Your task to perform on an android device: toggle wifi Image 0: 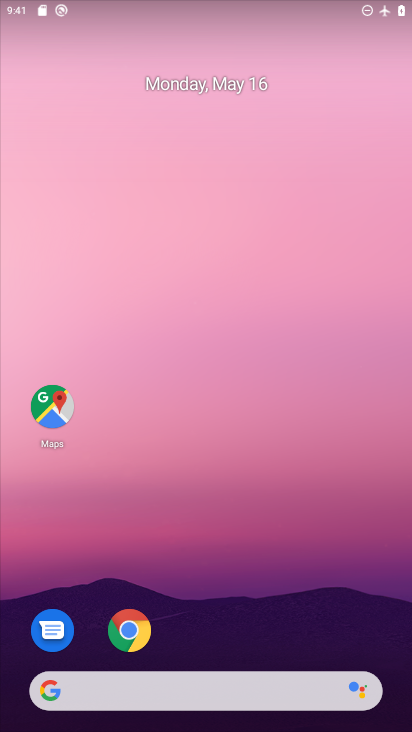
Step 0: drag from (199, 638) to (184, 299)
Your task to perform on an android device: toggle wifi Image 1: 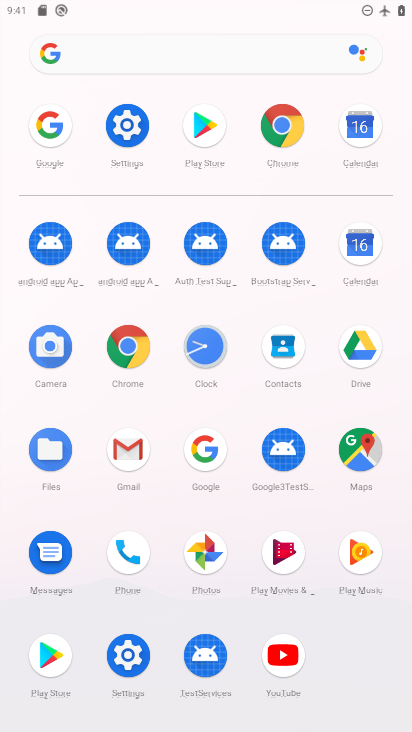
Step 1: click (133, 119)
Your task to perform on an android device: toggle wifi Image 2: 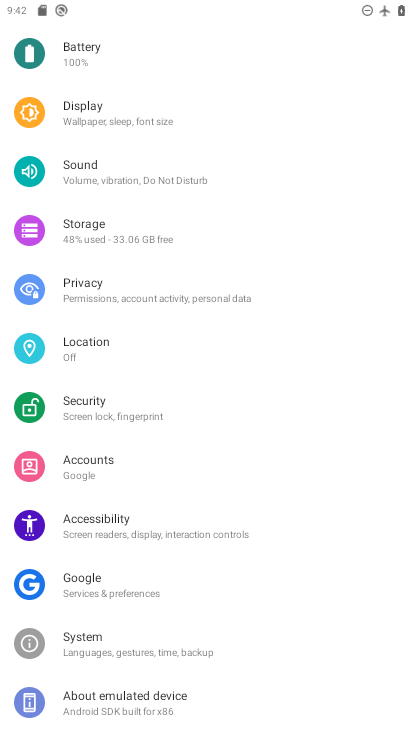
Step 2: drag from (137, 103) to (192, 428)
Your task to perform on an android device: toggle wifi Image 3: 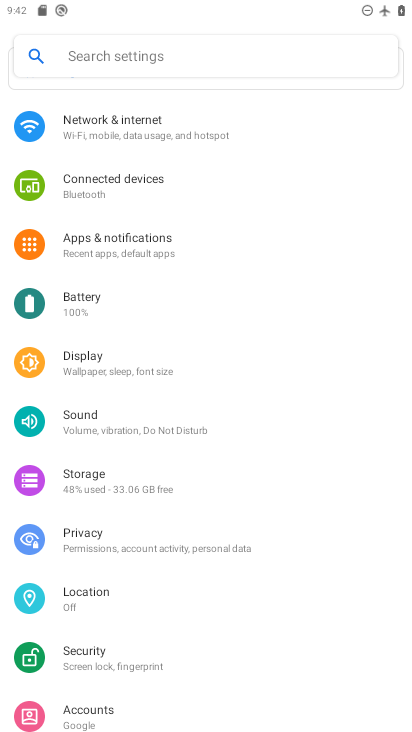
Step 3: click (112, 137)
Your task to perform on an android device: toggle wifi Image 4: 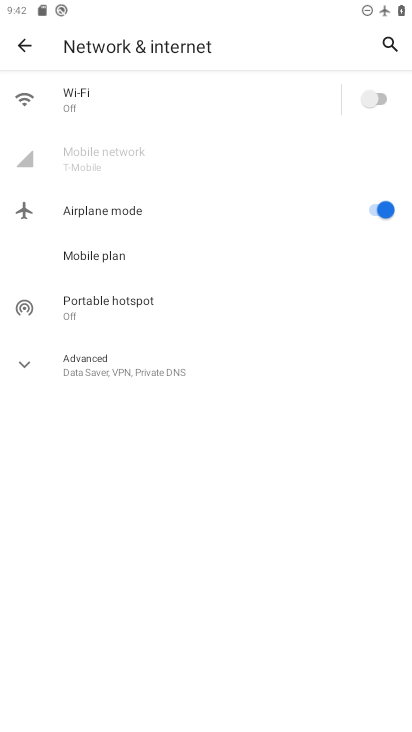
Step 4: click (378, 103)
Your task to perform on an android device: toggle wifi Image 5: 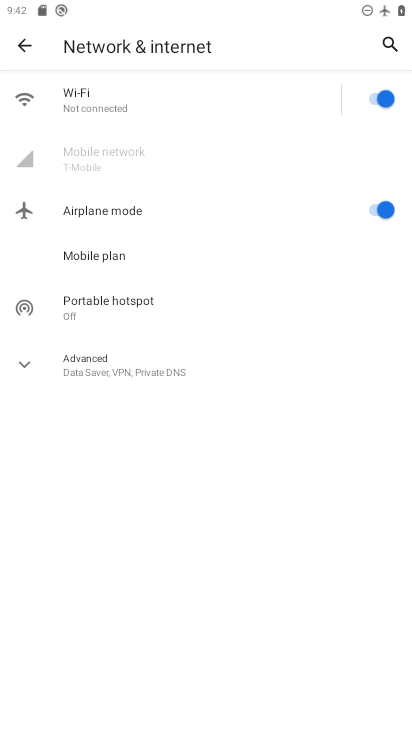
Step 5: task complete